Your task to perform on an android device: toggle data saver in the chrome app Image 0: 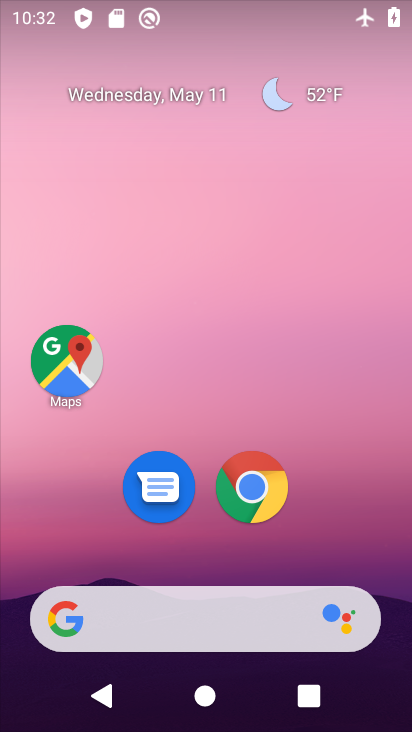
Step 0: drag from (347, 514) to (251, 8)
Your task to perform on an android device: toggle data saver in the chrome app Image 1: 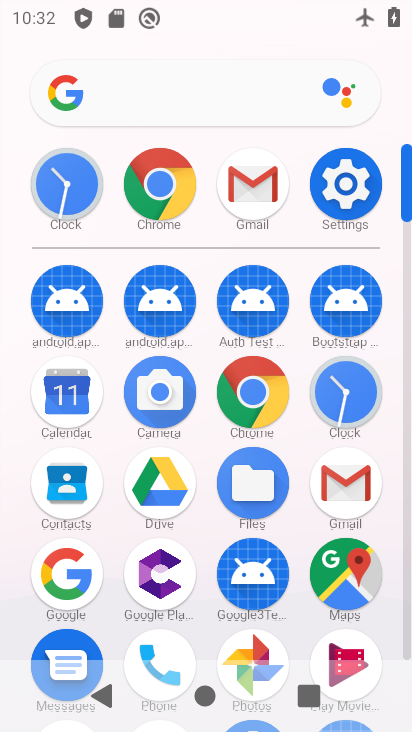
Step 1: click (249, 391)
Your task to perform on an android device: toggle data saver in the chrome app Image 2: 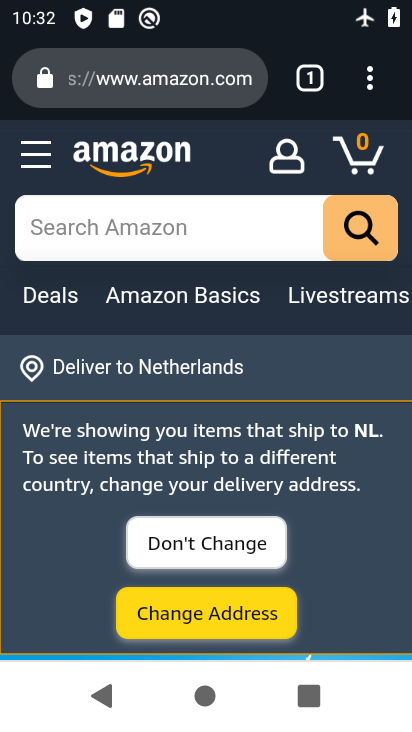
Step 2: drag from (368, 78) to (92, 545)
Your task to perform on an android device: toggle data saver in the chrome app Image 3: 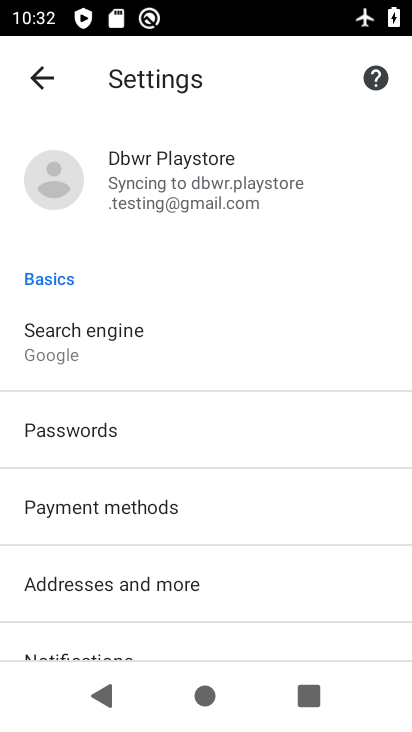
Step 3: drag from (202, 565) to (233, 218)
Your task to perform on an android device: toggle data saver in the chrome app Image 4: 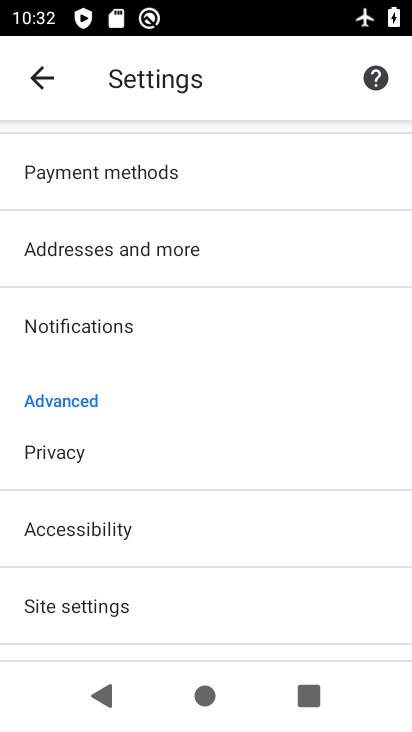
Step 4: drag from (152, 556) to (208, 242)
Your task to perform on an android device: toggle data saver in the chrome app Image 5: 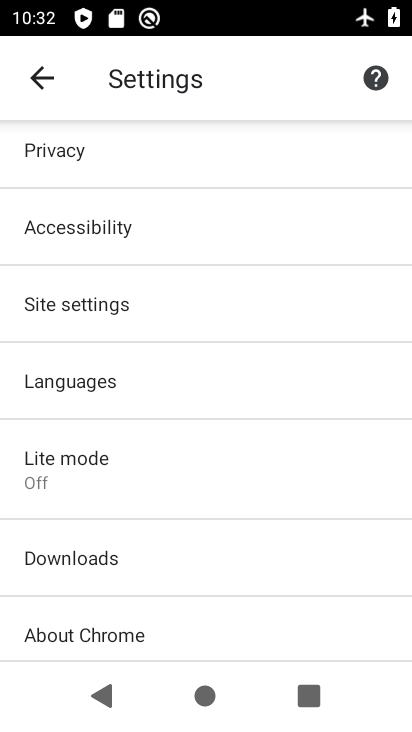
Step 5: drag from (144, 541) to (217, 198)
Your task to perform on an android device: toggle data saver in the chrome app Image 6: 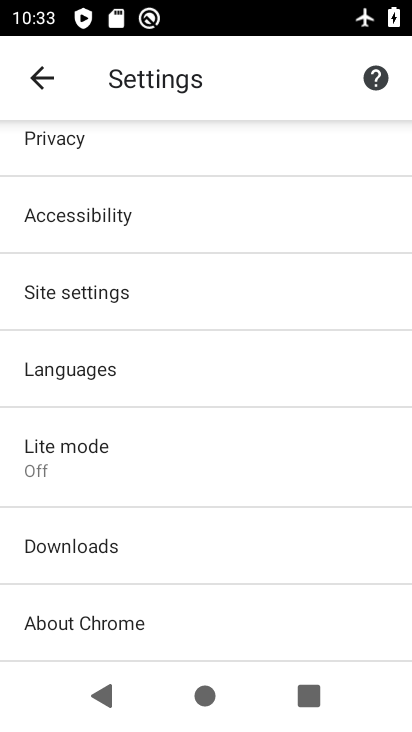
Step 6: click (143, 461)
Your task to perform on an android device: toggle data saver in the chrome app Image 7: 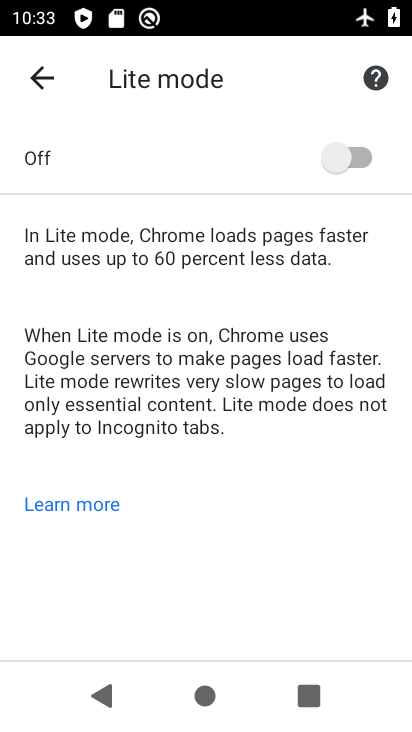
Step 7: click (358, 161)
Your task to perform on an android device: toggle data saver in the chrome app Image 8: 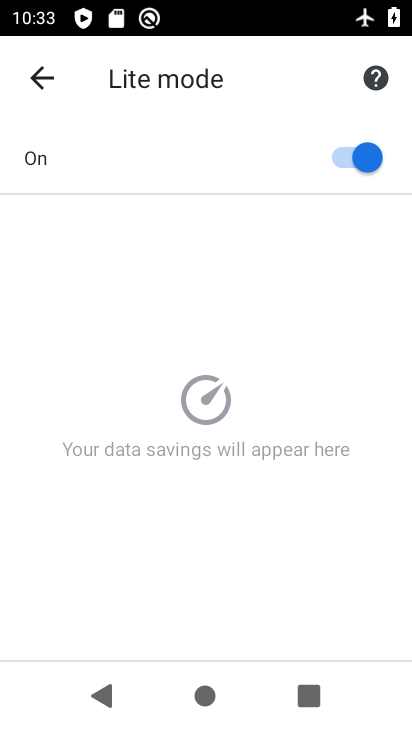
Step 8: task complete